Your task to perform on an android device: add a contact Image 0: 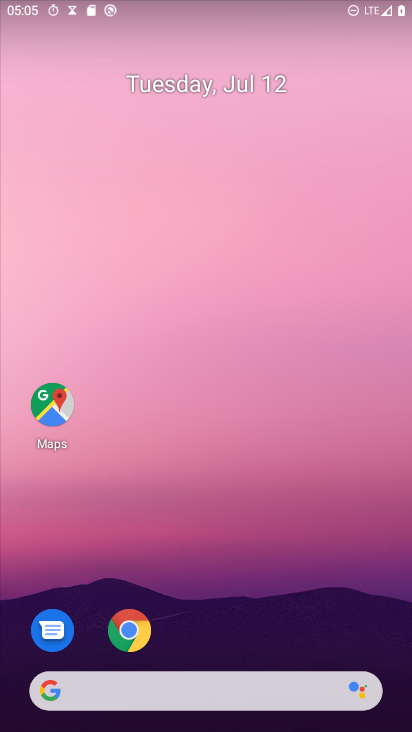
Step 0: drag from (214, 550) to (323, 4)
Your task to perform on an android device: add a contact Image 1: 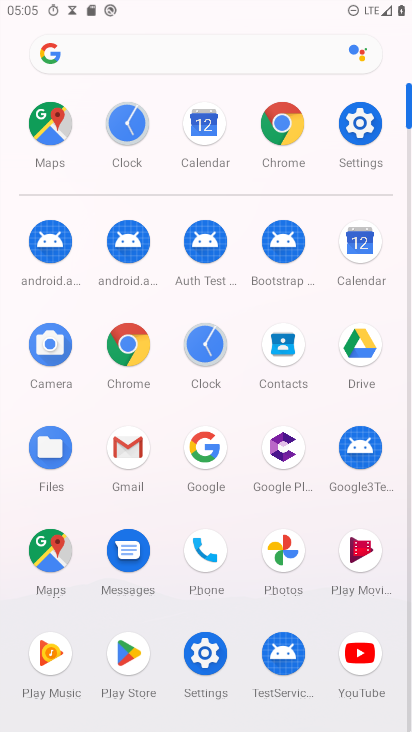
Step 1: click (286, 349)
Your task to perform on an android device: add a contact Image 2: 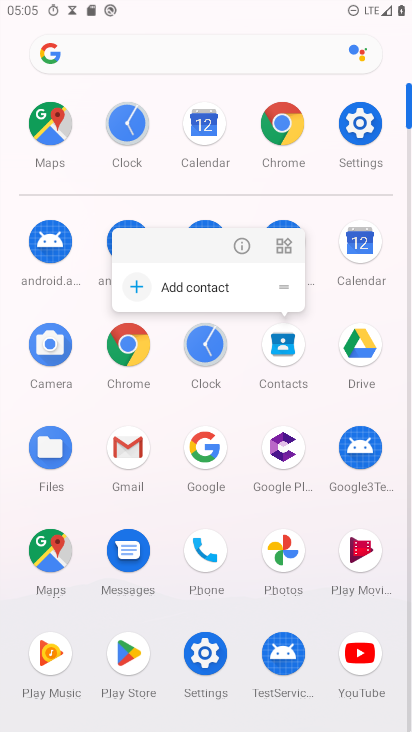
Step 2: click (280, 352)
Your task to perform on an android device: add a contact Image 3: 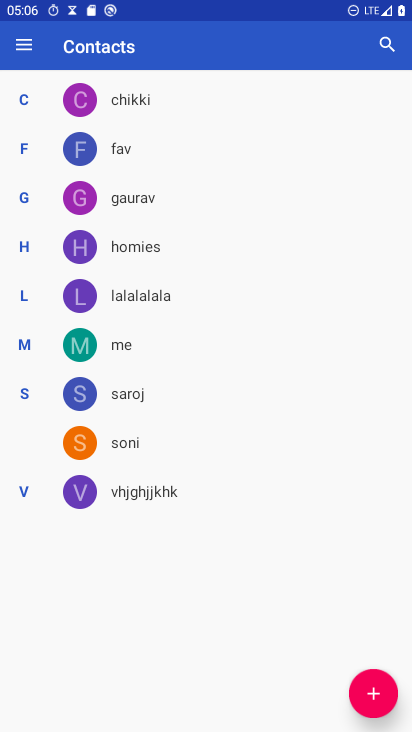
Step 3: click (364, 697)
Your task to perform on an android device: add a contact Image 4: 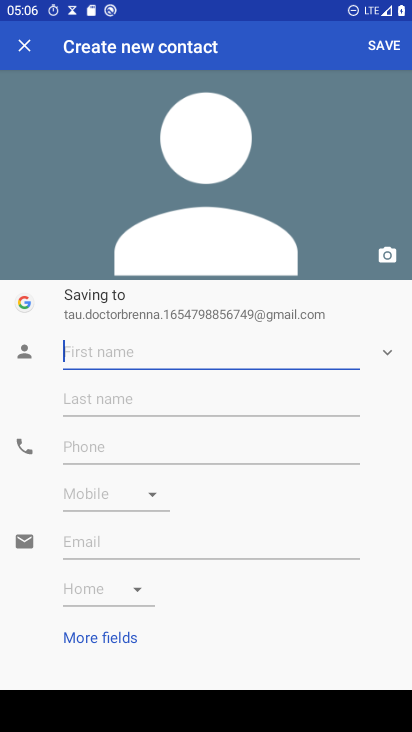
Step 4: type "sumi"
Your task to perform on an android device: add a contact Image 5: 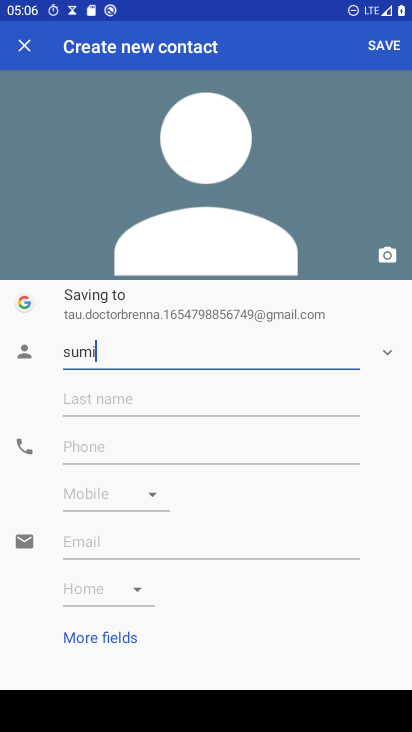
Step 5: click (251, 445)
Your task to perform on an android device: add a contact Image 6: 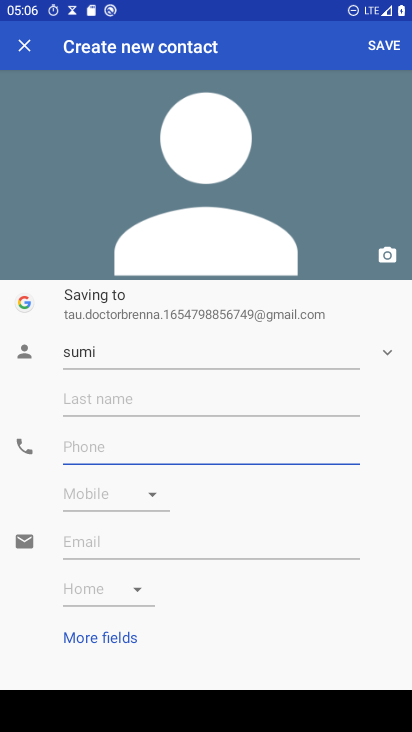
Step 6: type "87656788875"
Your task to perform on an android device: add a contact Image 7: 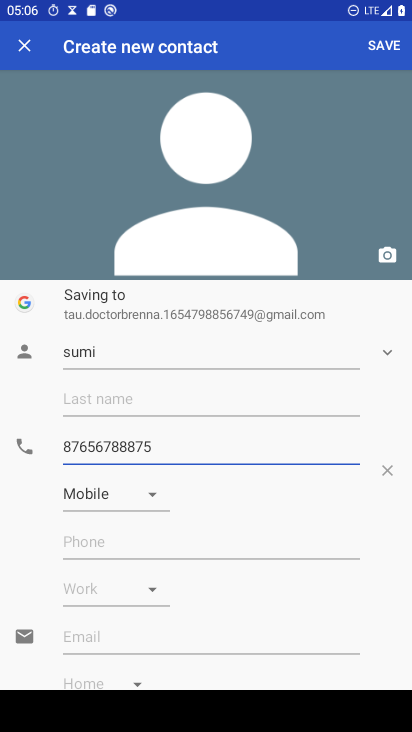
Step 7: click (363, 46)
Your task to perform on an android device: add a contact Image 8: 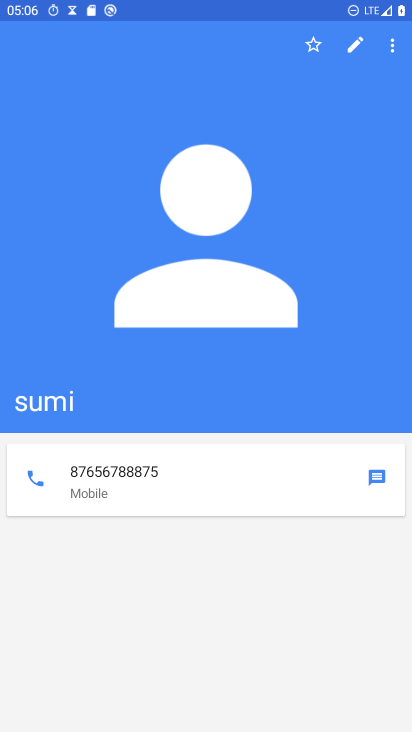
Step 8: task complete